Your task to perform on an android device: Go to calendar. Show me events next week Image 0: 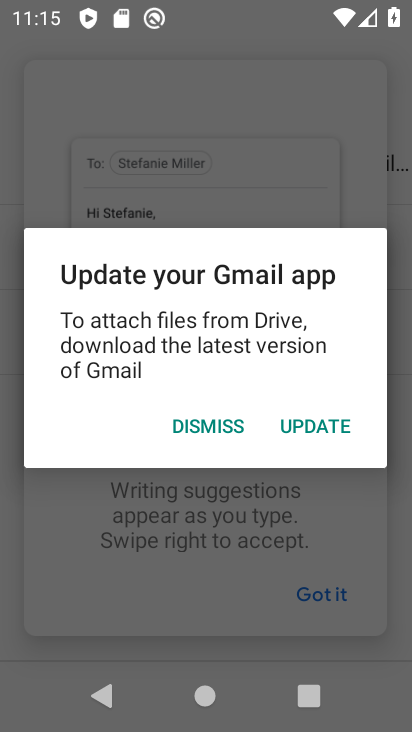
Step 0: press home button
Your task to perform on an android device: Go to calendar. Show me events next week Image 1: 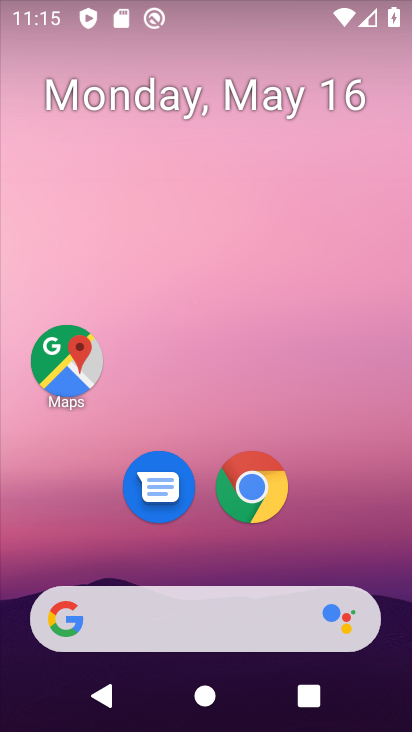
Step 1: drag from (63, 487) to (256, 144)
Your task to perform on an android device: Go to calendar. Show me events next week Image 2: 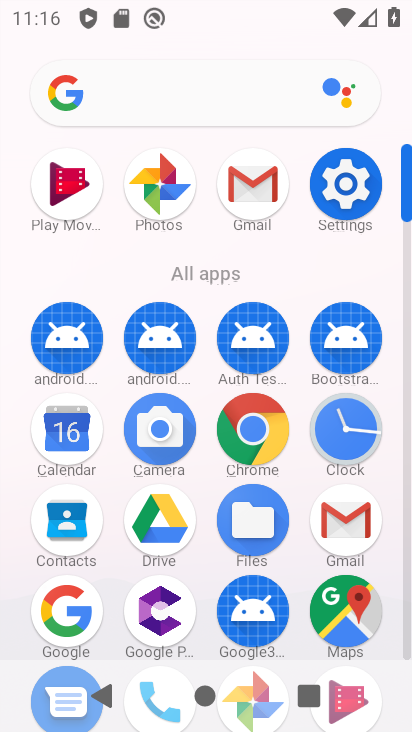
Step 2: click (68, 429)
Your task to perform on an android device: Go to calendar. Show me events next week Image 3: 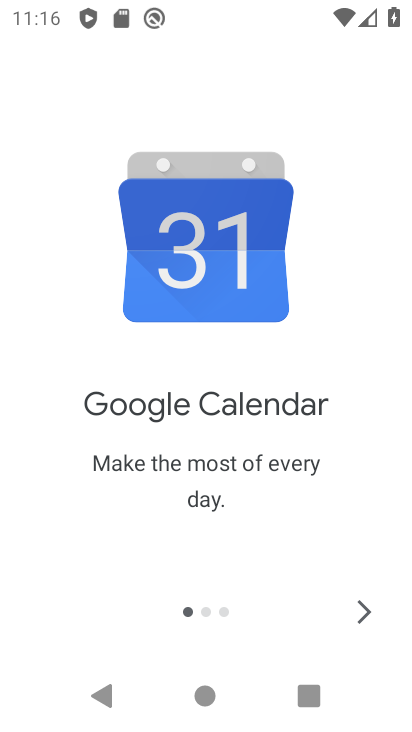
Step 3: click (359, 611)
Your task to perform on an android device: Go to calendar. Show me events next week Image 4: 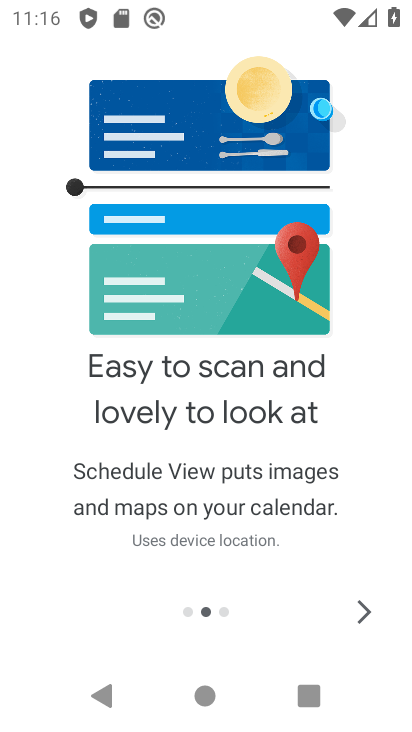
Step 4: click (359, 611)
Your task to perform on an android device: Go to calendar. Show me events next week Image 5: 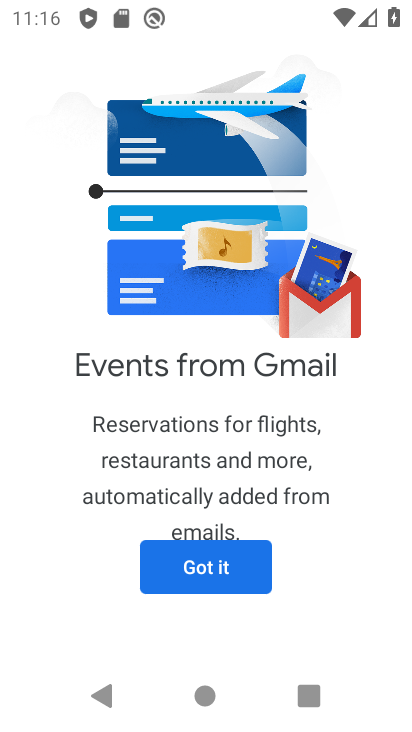
Step 5: click (152, 568)
Your task to perform on an android device: Go to calendar. Show me events next week Image 6: 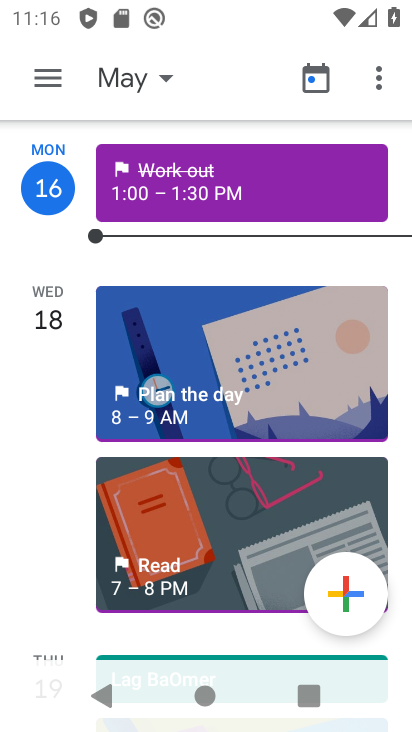
Step 6: click (115, 80)
Your task to perform on an android device: Go to calendar. Show me events next week Image 7: 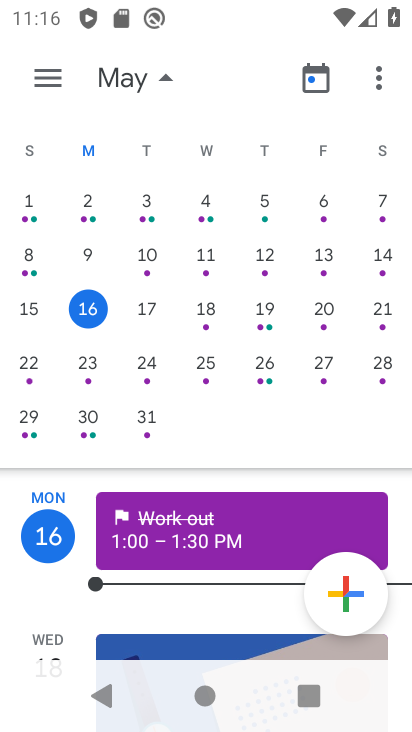
Step 7: click (83, 363)
Your task to perform on an android device: Go to calendar. Show me events next week Image 8: 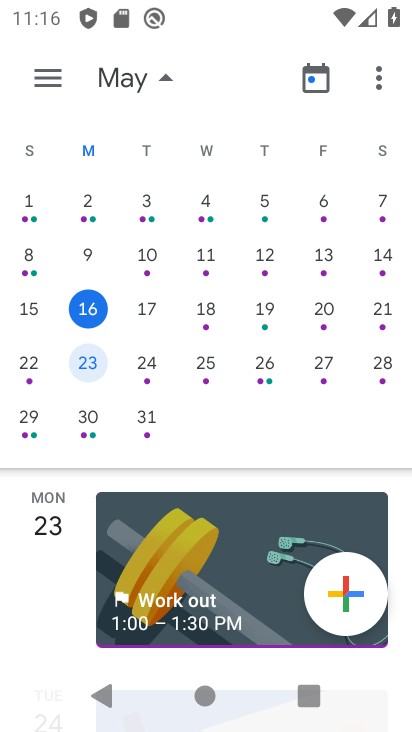
Step 8: task complete